Your task to perform on an android device: change the clock display to show seconds Image 0: 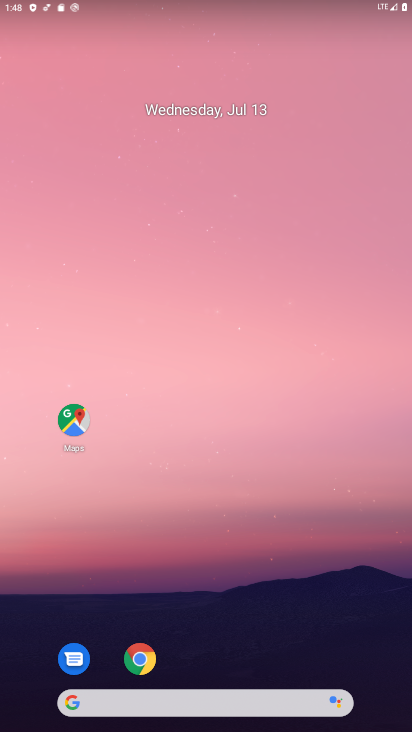
Step 0: drag from (377, 660) to (304, 177)
Your task to perform on an android device: change the clock display to show seconds Image 1: 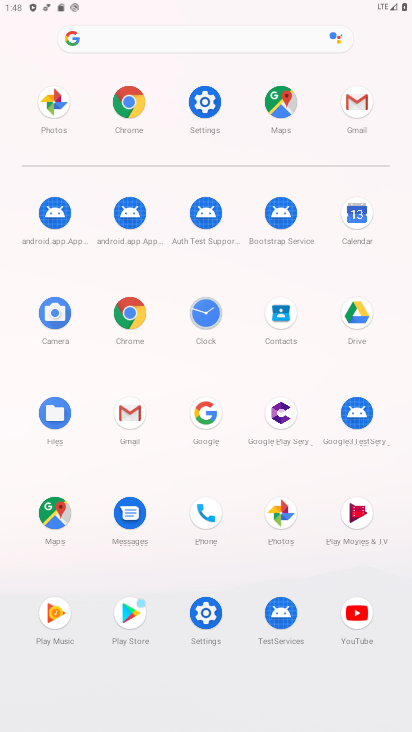
Step 1: click (206, 312)
Your task to perform on an android device: change the clock display to show seconds Image 2: 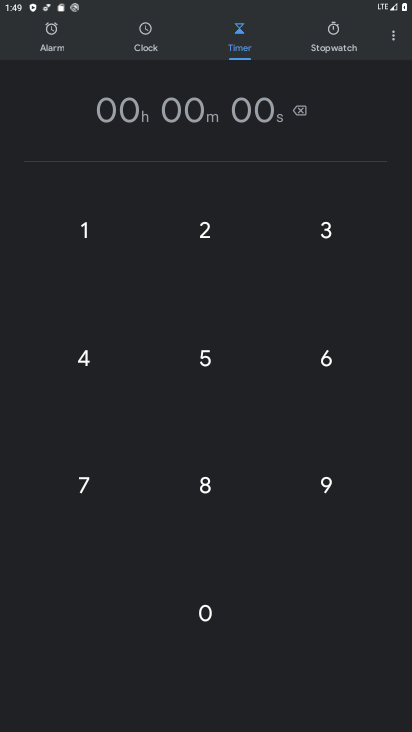
Step 2: click (391, 39)
Your task to perform on an android device: change the clock display to show seconds Image 3: 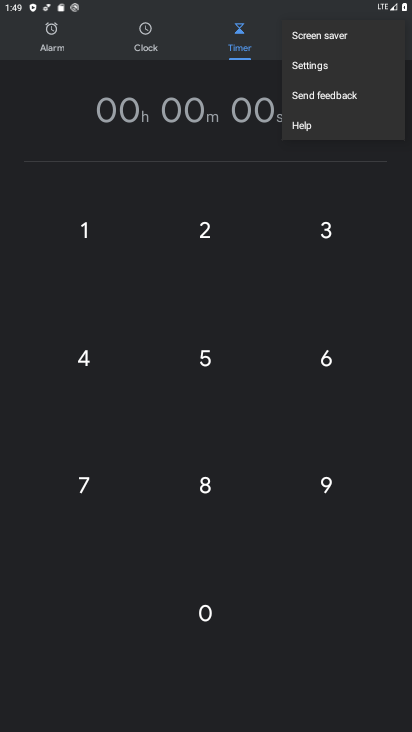
Step 3: click (303, 62)
Your task to perform on an android device: change the clock display to show seconds Image 4: 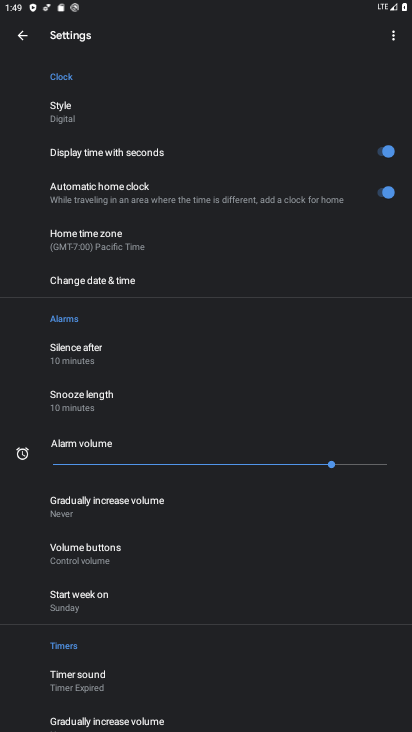
Step 4: task complete